Your task to perform on an android device: Go to wifi settings Image 0: 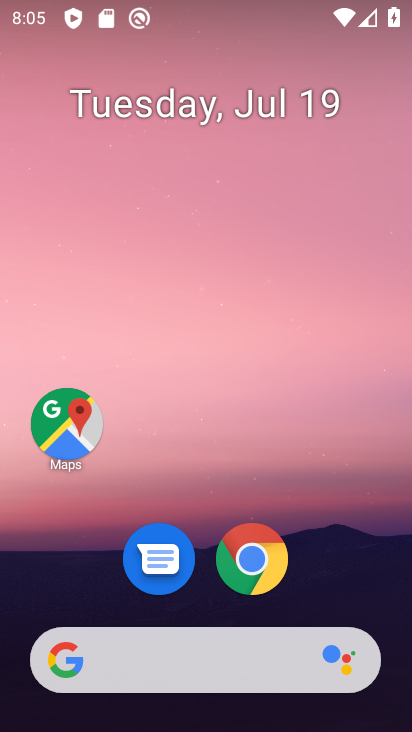
Step 0: drag from (367, 577) to (219, 98)
Your task to perform on an android device: Go to wifi settings Image 1: 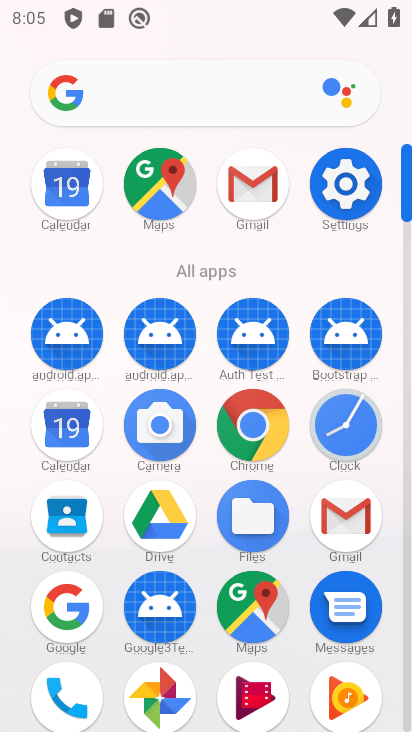
Step 1: click (365, 205)
Your task to perform on an android device: Go to wifi settings Image 2: 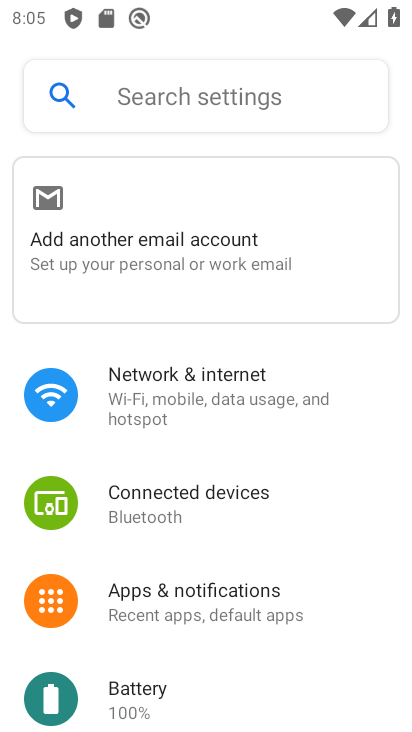
Step 2: click (240, 394)
Your task to perform on an android device: Go to wifi settings Image 3: 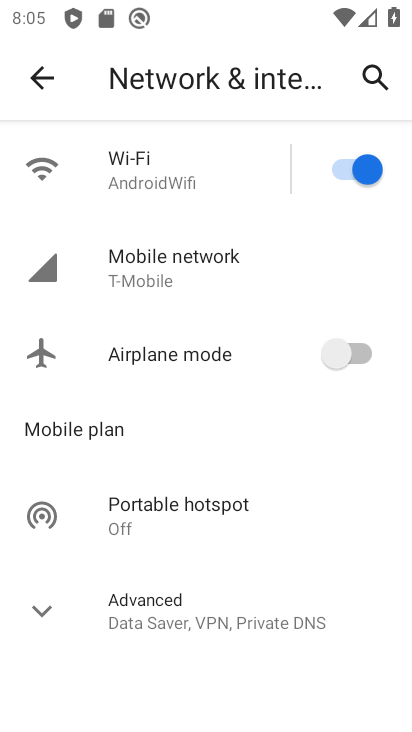
Step 3: click (179, 155)
Your task to perform on an android device: Go to wifi settings Image 4: 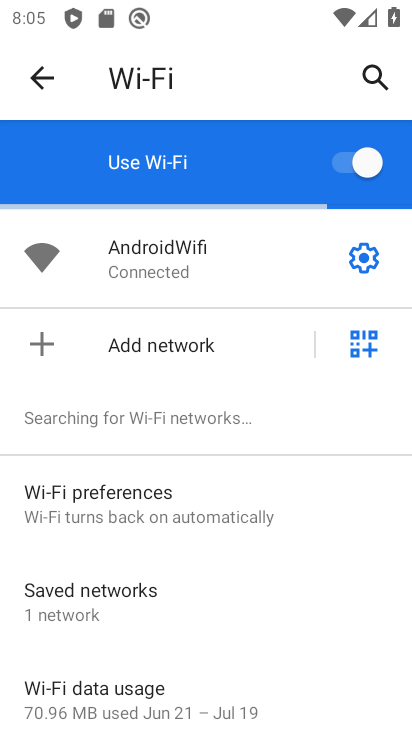
Step 4: task complete